Your task to perform on an android device: Open Google Image 0: 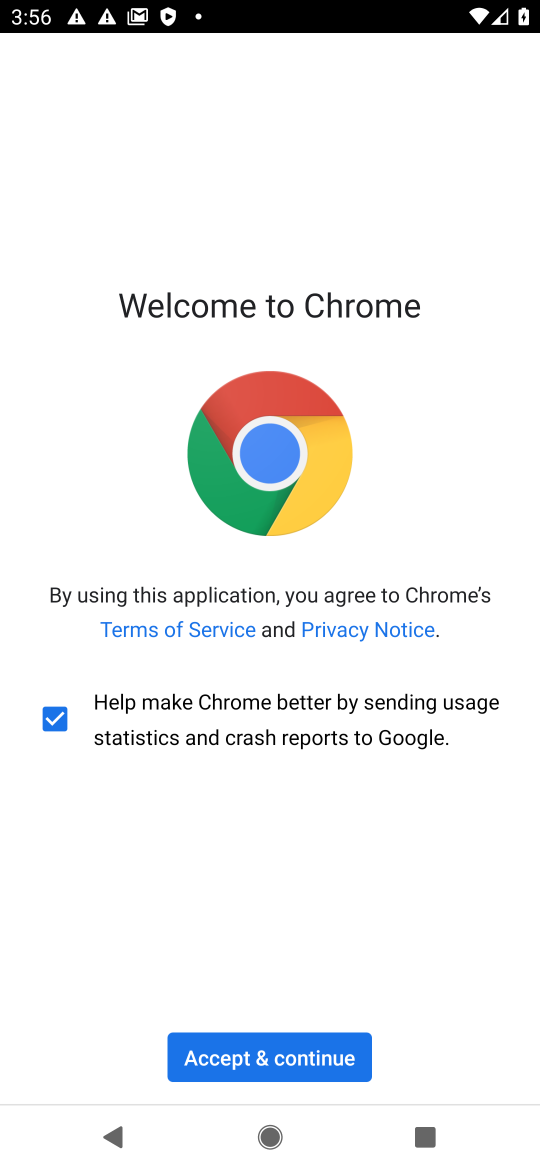
Step 0: press home button
Your task to perform on an android device: Open Google Image 1: 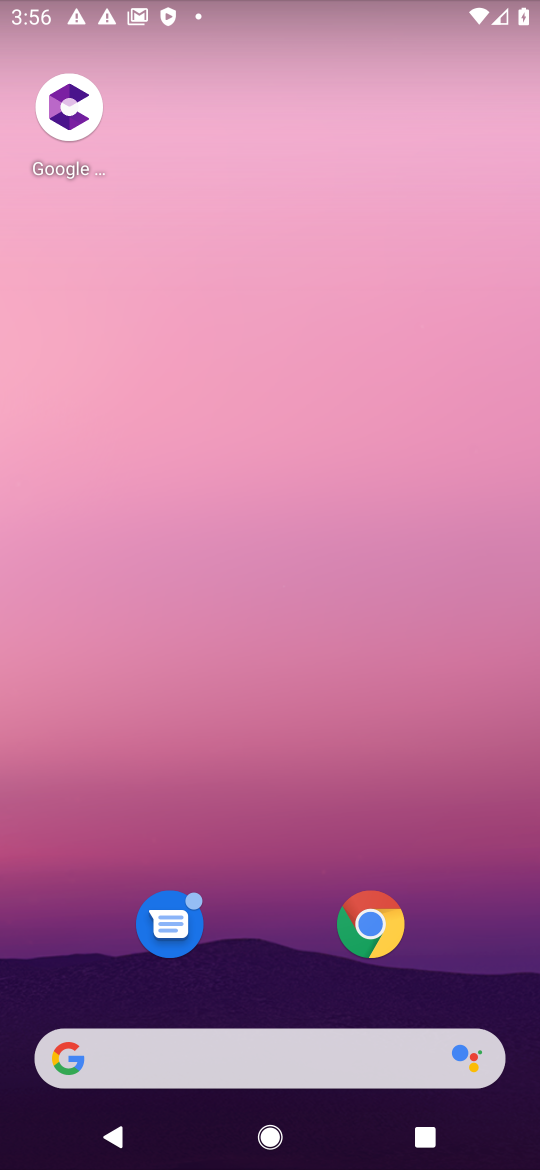
Step 1: drag from (279, 954) to (283, 387)
Your task to perform on an android device: Open Google Image 2: 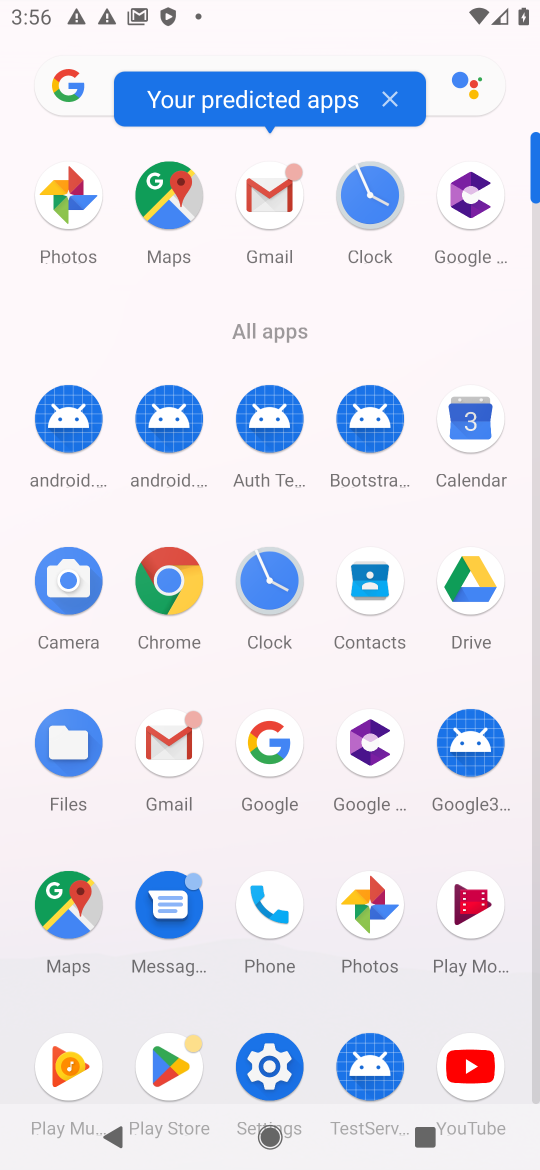
Step 2: click (263, 752)
Your task to perform on an android device: Open Google Image 3: 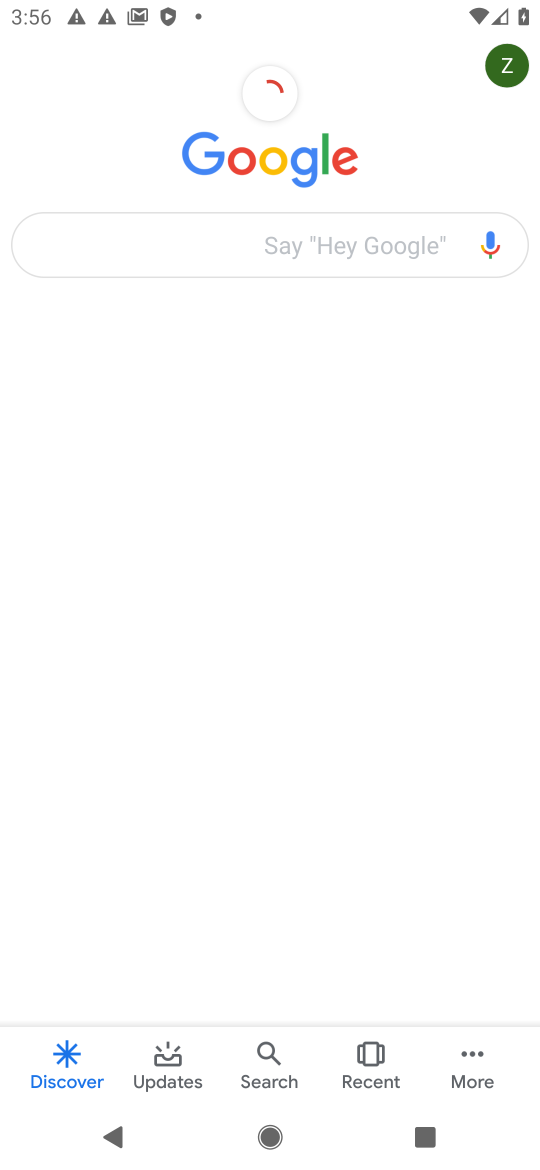
Step 3: task complete